Your task to perform on an android device: make emails show in primary in the gmail app Image 0: 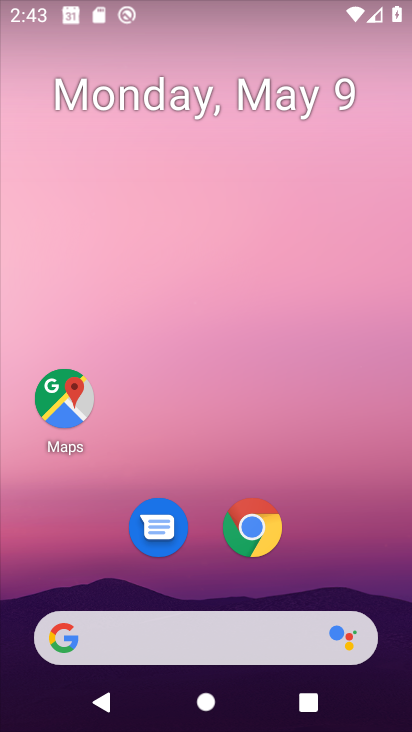
Step 0: drag from (227, 652) to (321, 4)
Your task to perform on an android device: make emails show in primary in the gmail app Image 1: 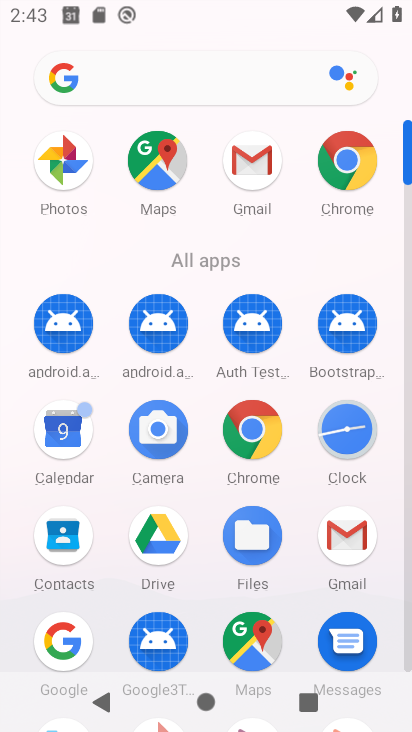
Step 1: click (366, 556)
Your task to perform on an android device: make emails show in primary in the gmail app Image 2: 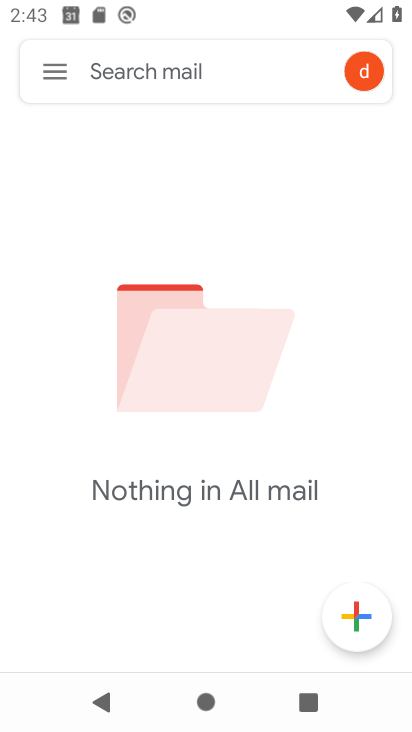
Step 2: click (62, 77)
Your task to perform on an android device: make emails show in primary in the gmail app Image 3: 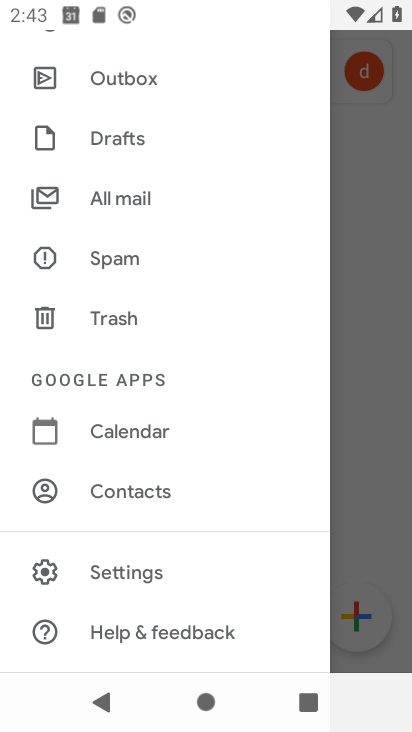
Step 3: click (153, 579)
Your task to perform on an android device: make emails show in primary in the gmail app Image 4: 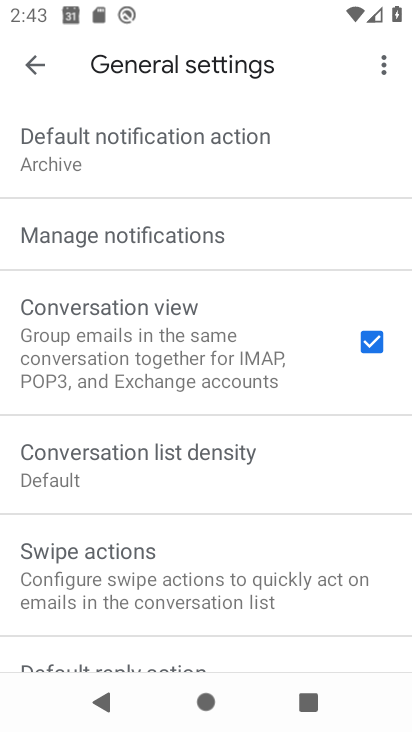
Step 4: click (216, 265)
Your task to perform on an android device: make emails show in primary in the gmail app Image 5: 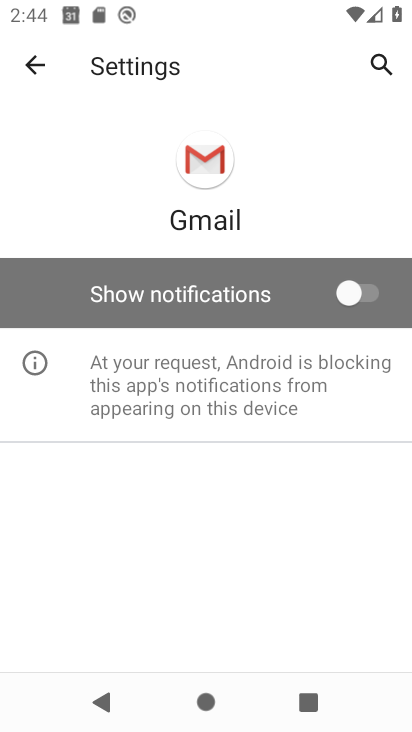
Step 5: task complete